Your task to perform on an android device: Go to Maps Image 0: 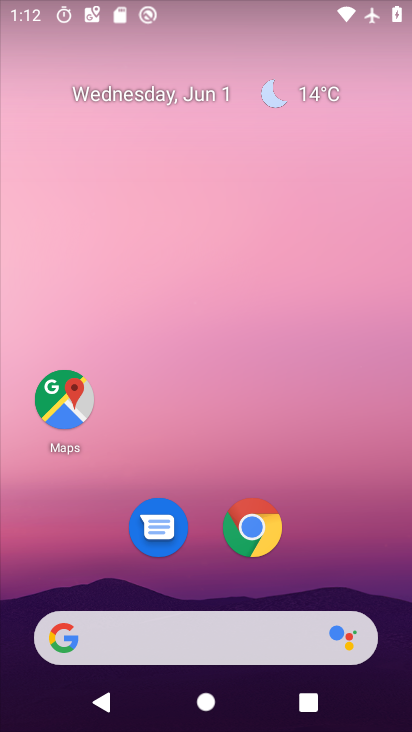
Step 0: click (63, 404)
Your task to perform on an android device: Go to Maps Image 1: 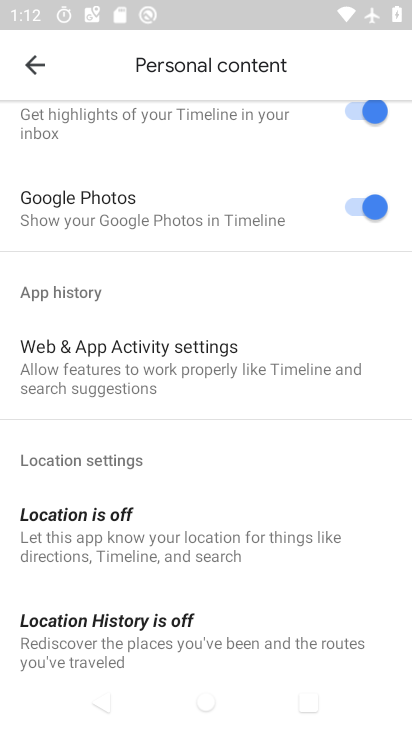
Step 1: click (28, 68)
Your task to perform on an android device: Go to Maps Image 2: 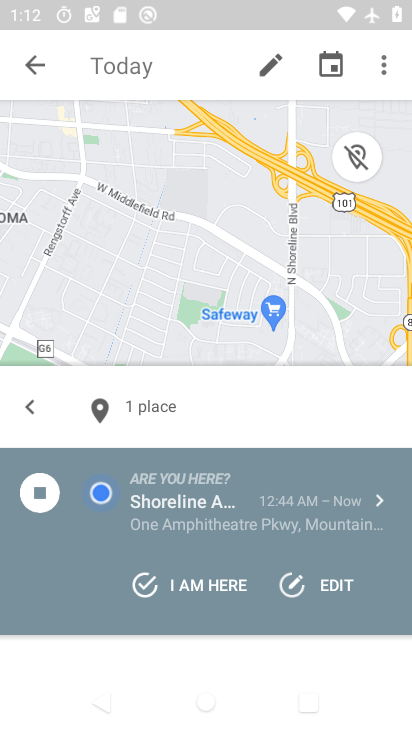
Step 2: click (28, 68)
Your task to perform on an android device: Go to Maps Image 3: 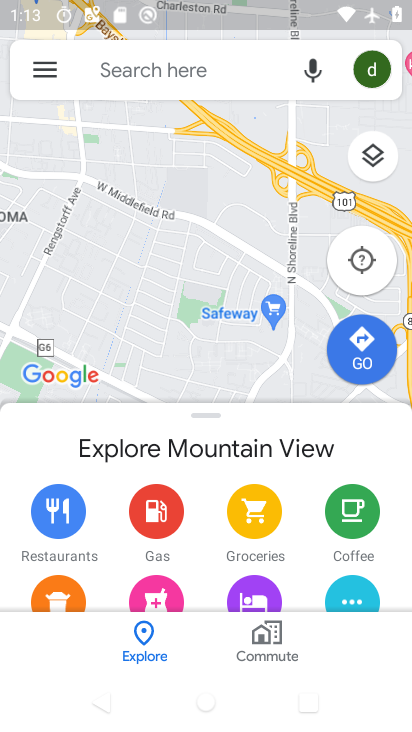
Step 3: task complete